Your task to perform on an android device: Open eBay Image 0: 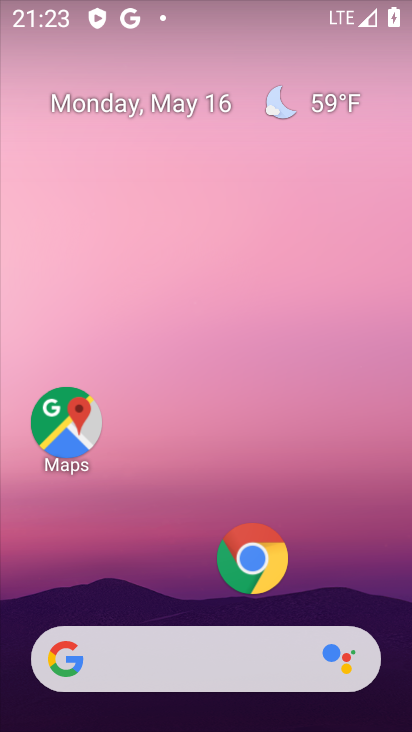
Step 0: click (250, 566)
Your task to perform on an android device: Open eBay Image 1: 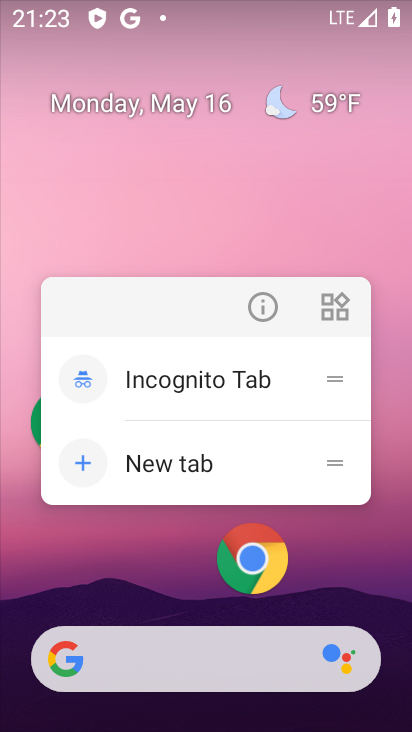
Step 1: click (251, 577)
Your task to perform on an android device: Open eBay Image 2: 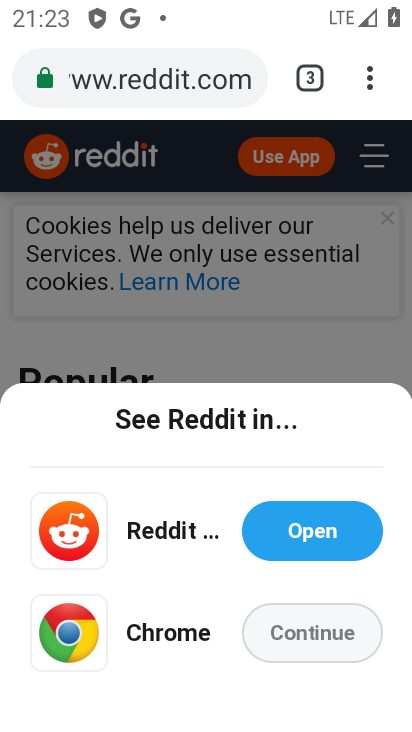
Step 2: click (311, 75)
Your task to perform on an android device: Open eBay Image 3: 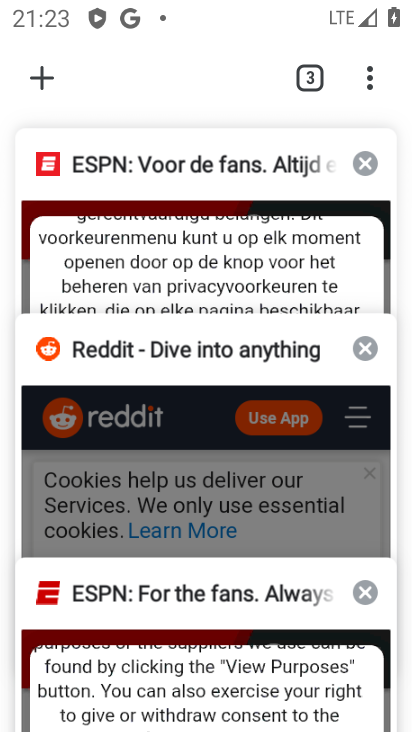
Step 3: click (31, 69)
Your task to perform on an android device: Open eBay Image 4: 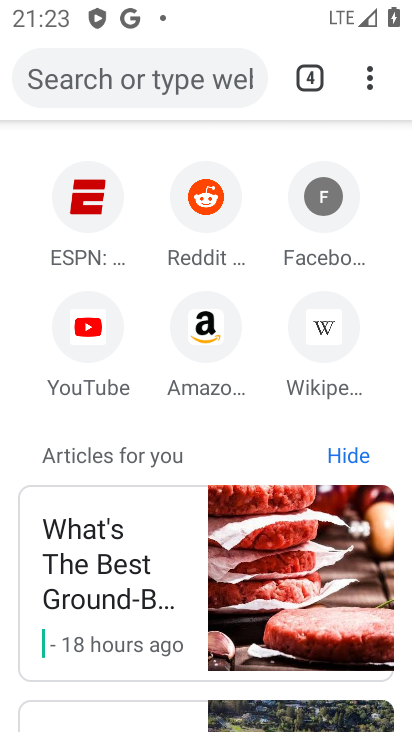
Step 4: click (118, 74)
Your task to perform on an android device: Open eBay Image 5: 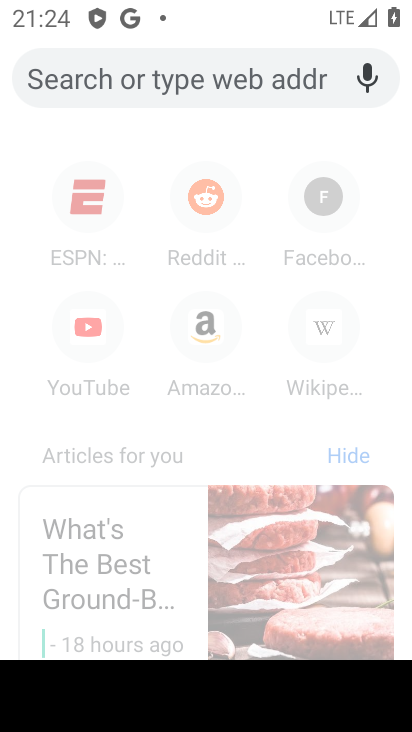
Step 5: type "ebay"
Your task to perform on an android device: Open eBay Image 6: 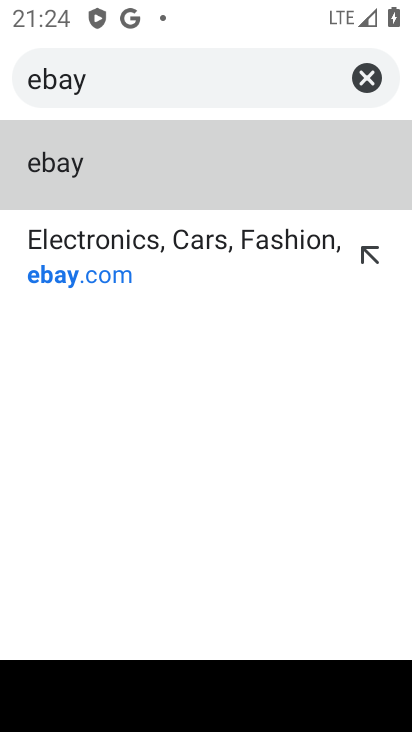
Step 6: click (128, 247)
Your task to perform on an android device: Open eBay Image 7: 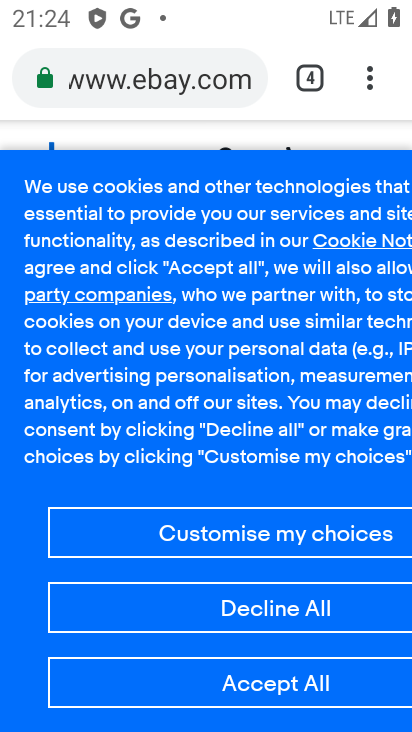
Step 7: task complete